Your task to perform on an android device: What's the weather going to be tomorrow? Image 0: 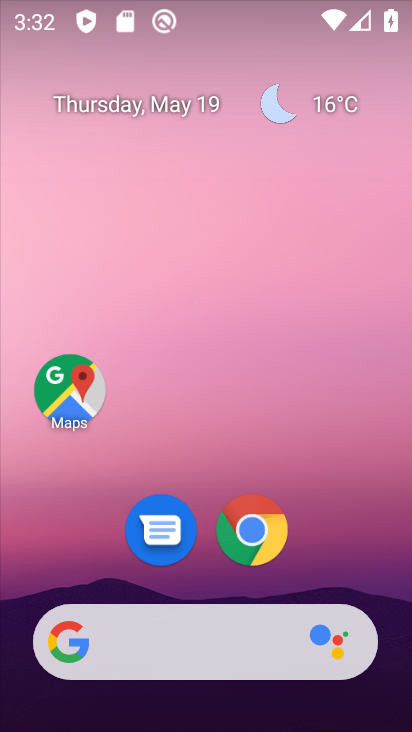
Step 0: drag from (366, 458) to (388, 170)
Your task to perform on an android device: What's the weather going to be tomorrow? Image 1: 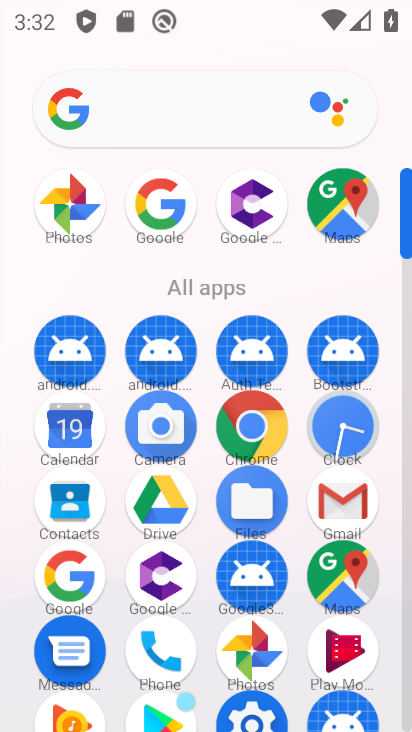
Step 1: click (171, 210)
Your task to perform on an android device: What's the weather going to be tomorrow? Image 2: 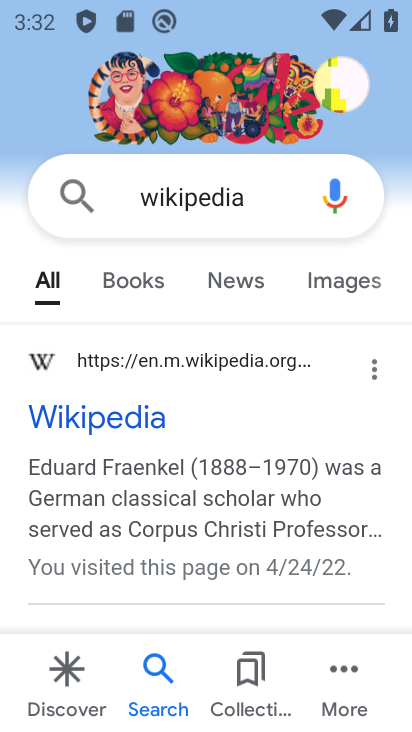
Step 2: click (225, 199)
Your task to perform on an android device: What's the weather going to be tomorrow? Image 3: 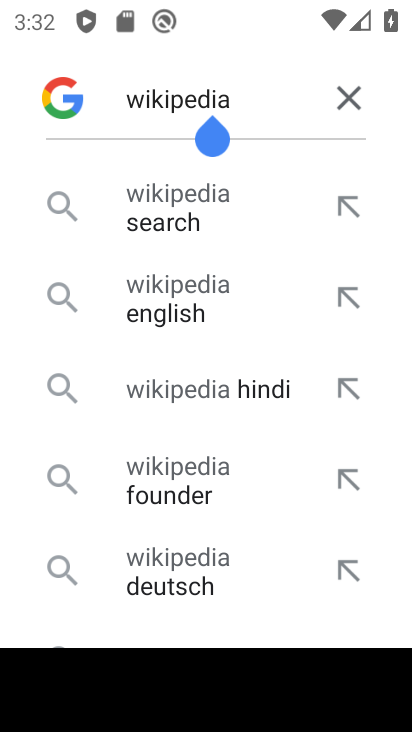
Step 3: click (341, 101)
Your task to perform on an android device: What's the weather going to be tomorrow? Image 4: 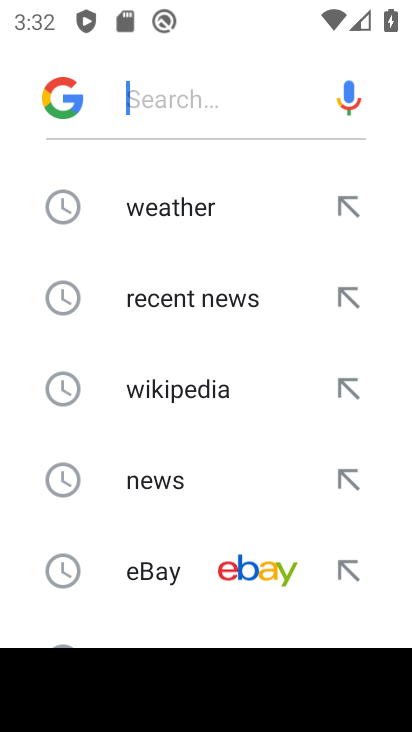
Step 4: drag from (252, 469) to (307, 180)
Your task to perform on an android device: What's the weather going to be tomorrow? Image 5: 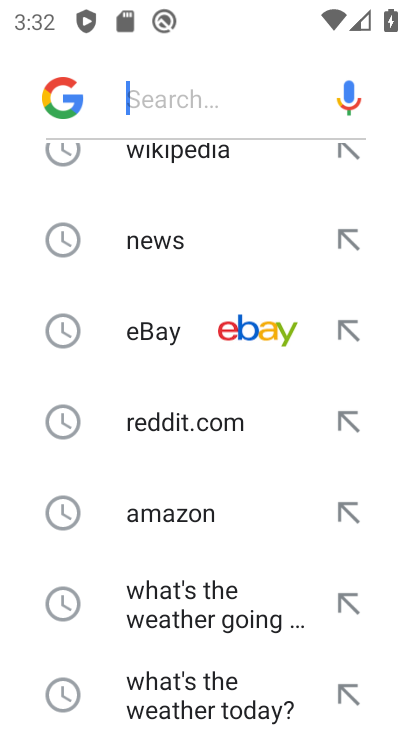
Step 5: drag from (276, 631) to (288, 403)
Your task to perform on an android device: What's the weather going to be tomorrow? Image 6: 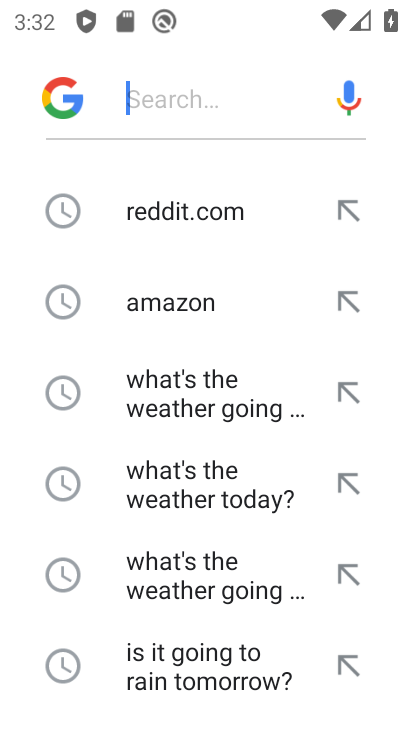
Step 6: click (246, 569)
Your task to perform on an android device: What's the weather going to be tomorrow? Image 7: 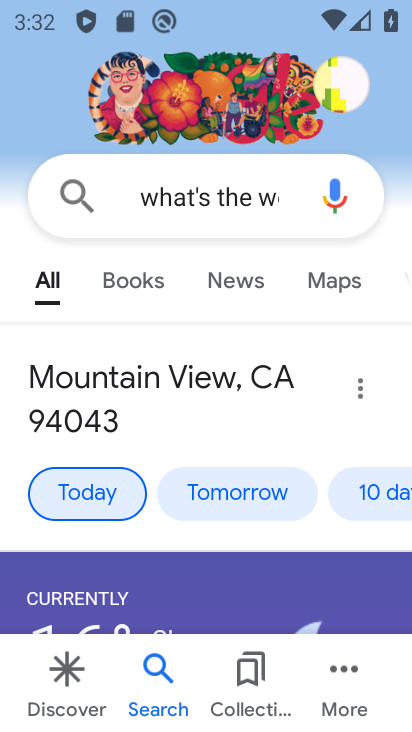
Step 7: click (232, 195)
Your task to perform on an android device: What's the weather going to be tomorrow? Image 8: 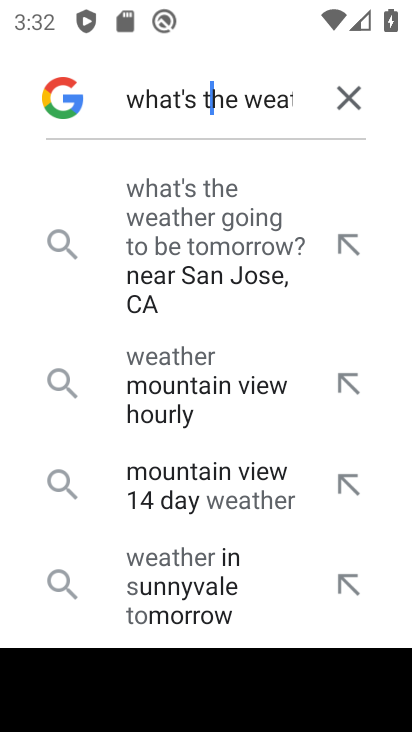
Step 8: task complete